Your task to perform on an android device: Find coffee shops on Maps Image 0: 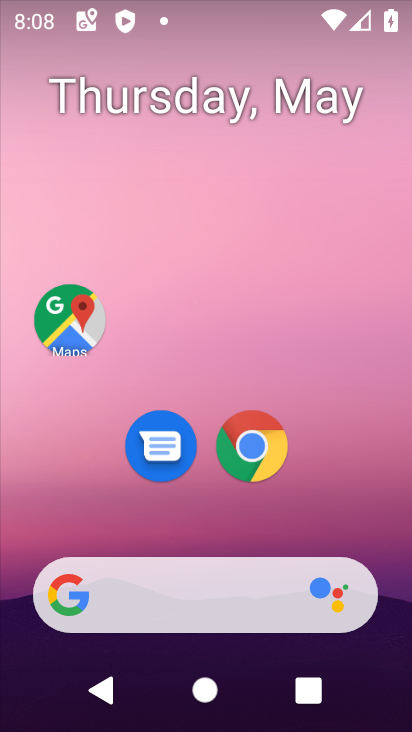
Step 0: drag from (360, 503) to (366, 75)
Your task to perform on an android device: Find coffee shops on Maps Image 1: 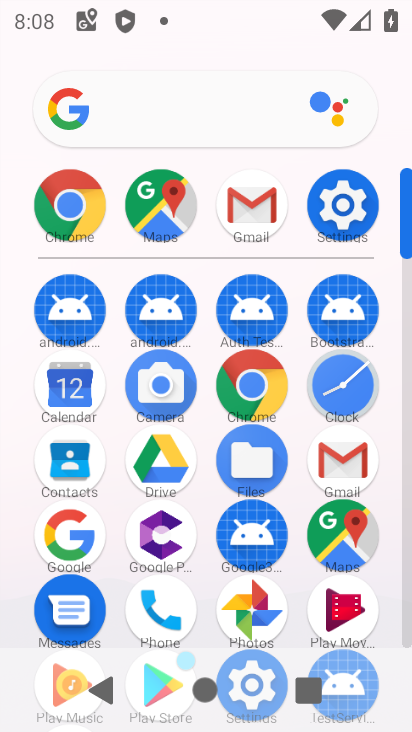
Step 1: click (347, 526)
Your task to perform on an android device: Find coffee shops on Maps Image 2: 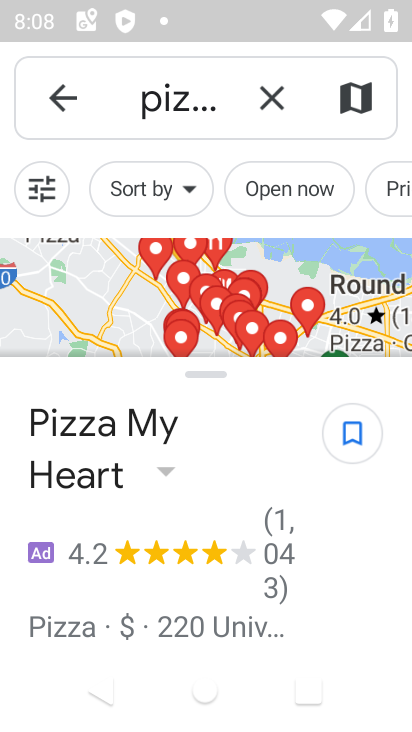
Step 2: task complete